Your task to perform on an android device: turn on airplane mode Image 0: 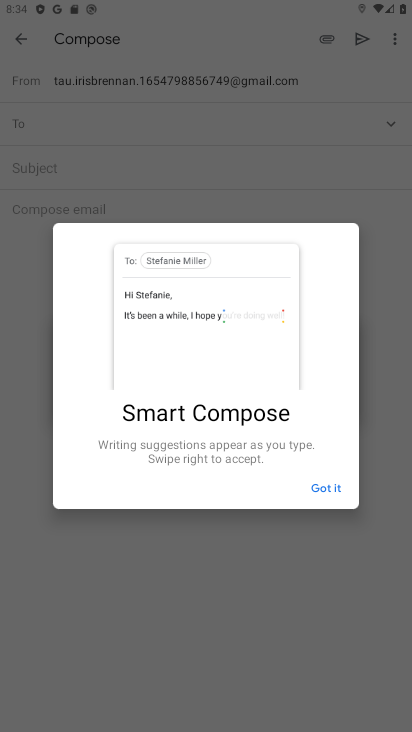
Step 0: drag from (233, 3) to (164, 568)
Your task to perform on an android device: turn on airplane mode Image 1: 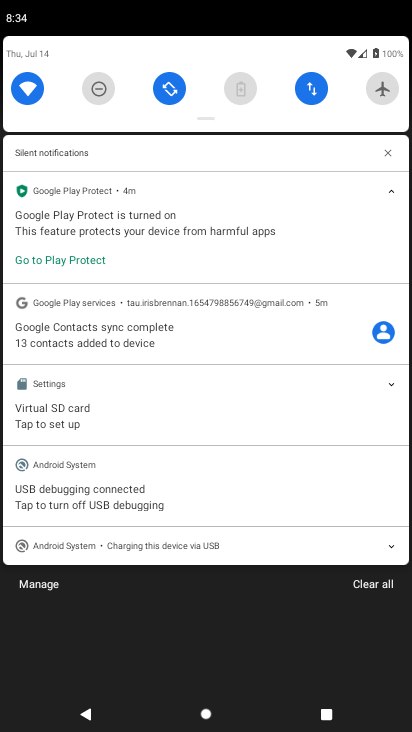
Step 1: click (395, 90)
Your task to perform on an android device: turn on airplane mode Image 2: 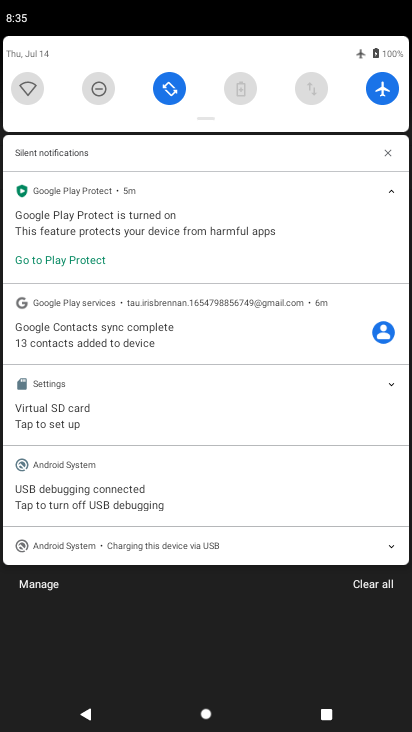
Step 2: task complete